Your task to perform on an android device: Search for the best selling books Image 0: 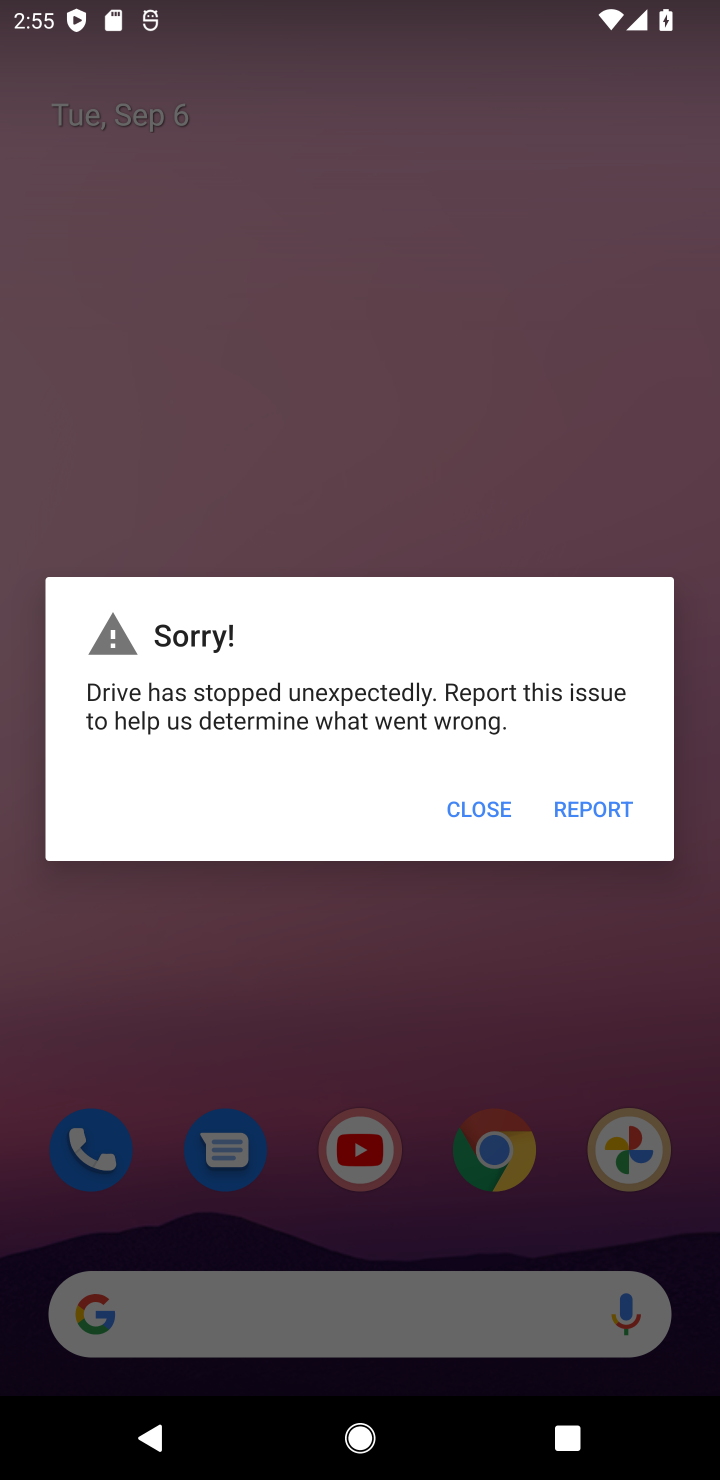
Step 0: press home button
Your task to perform on an android device: Search for the best selling books Image 1: 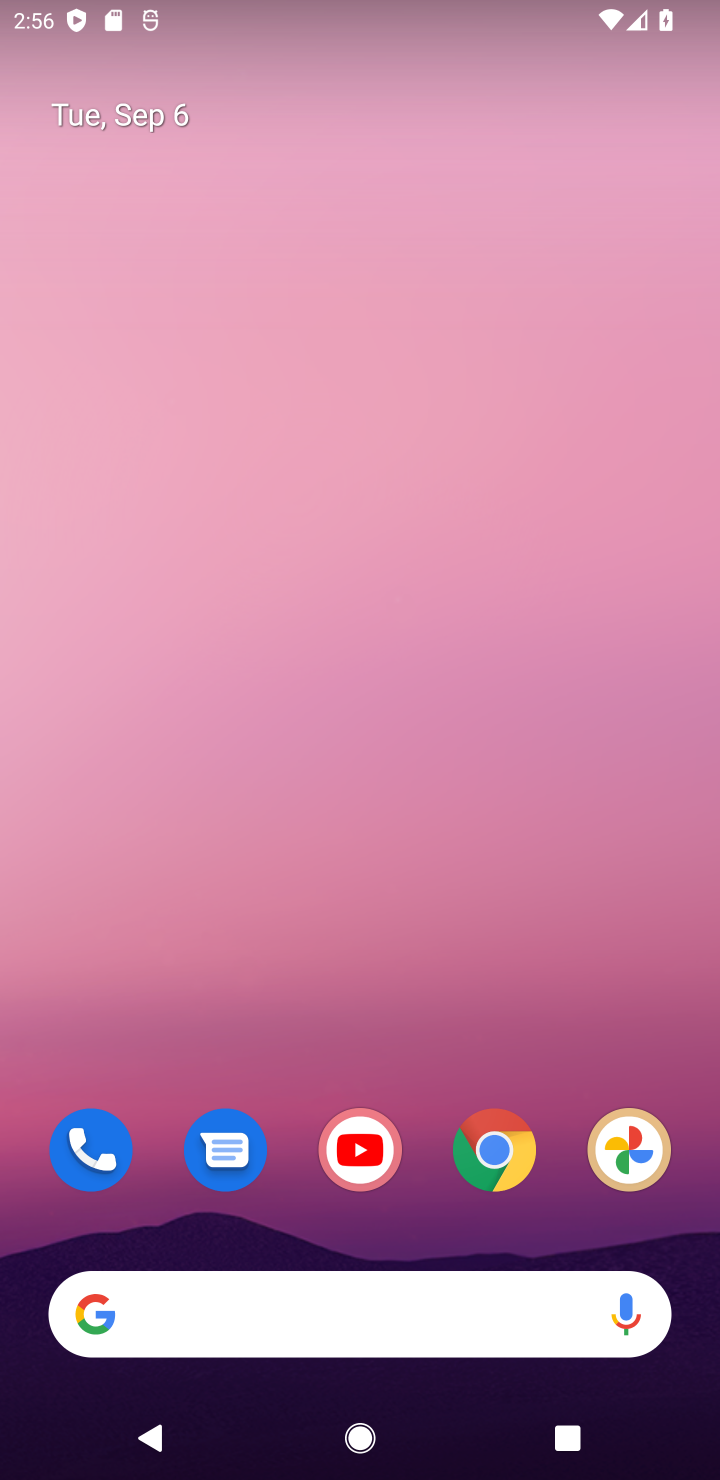
Step 1: click (505, 1158)
Your task to perform on an android device: Search for the best selling books Image 2: 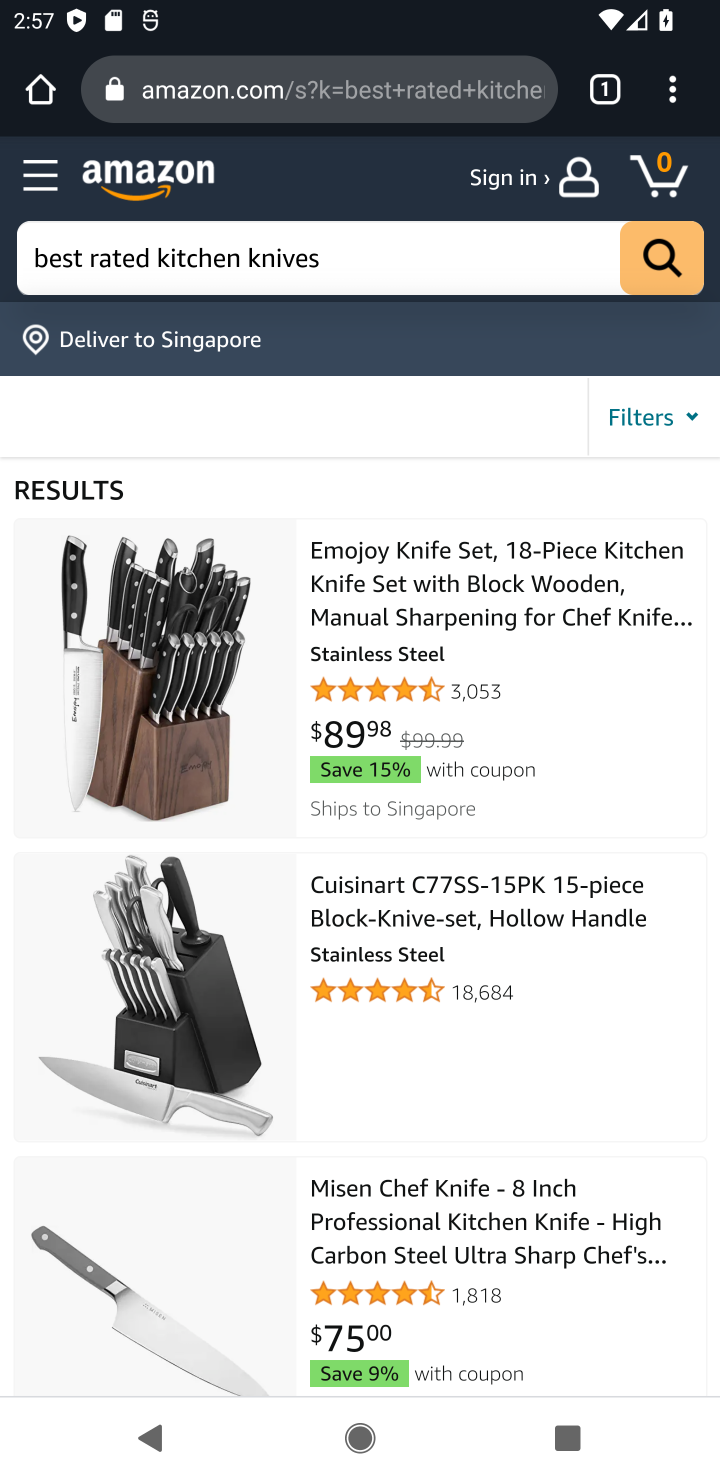
Step 2: click (277, 103)
Your task to perform on an android device: Search for the best selling books Image 3: 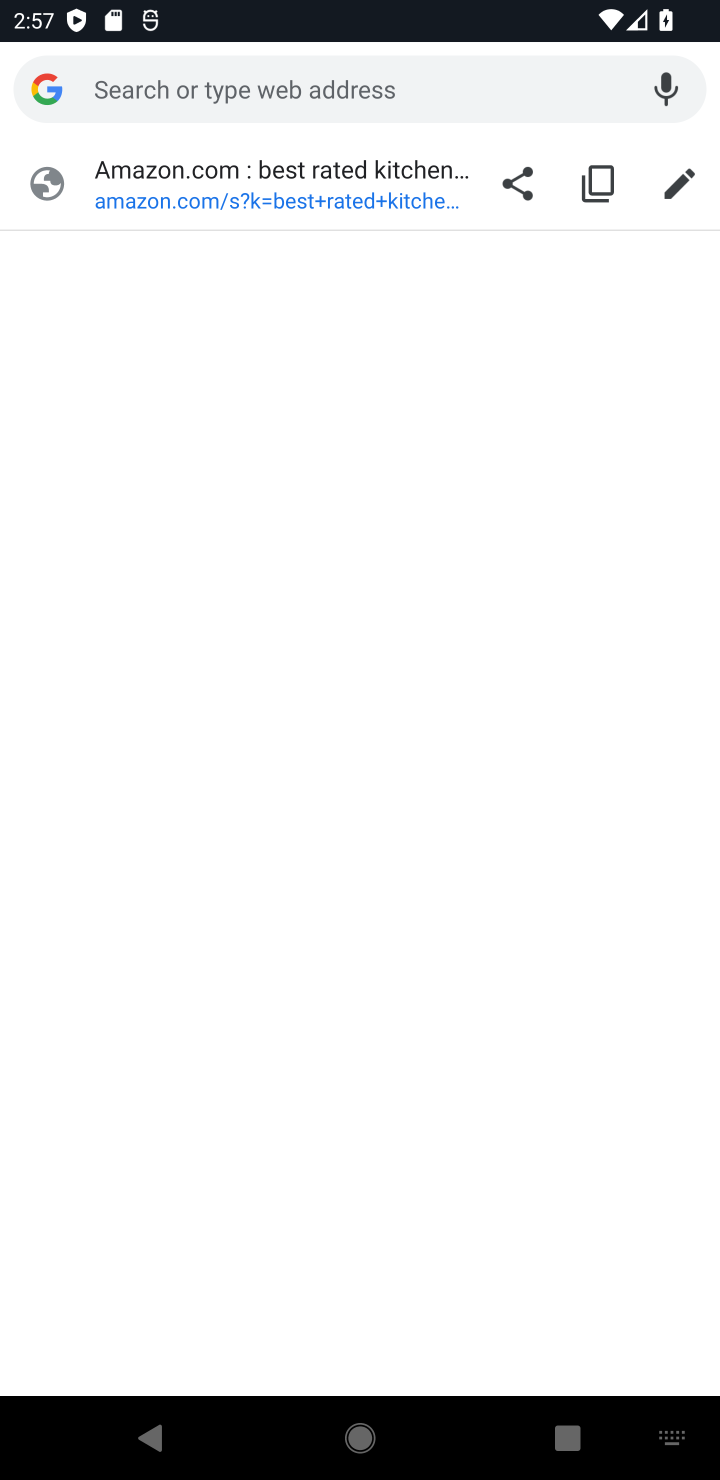
Step 3: type "the best selling books"
Your task to perform on an android device: Search for the best selling books Image 4: 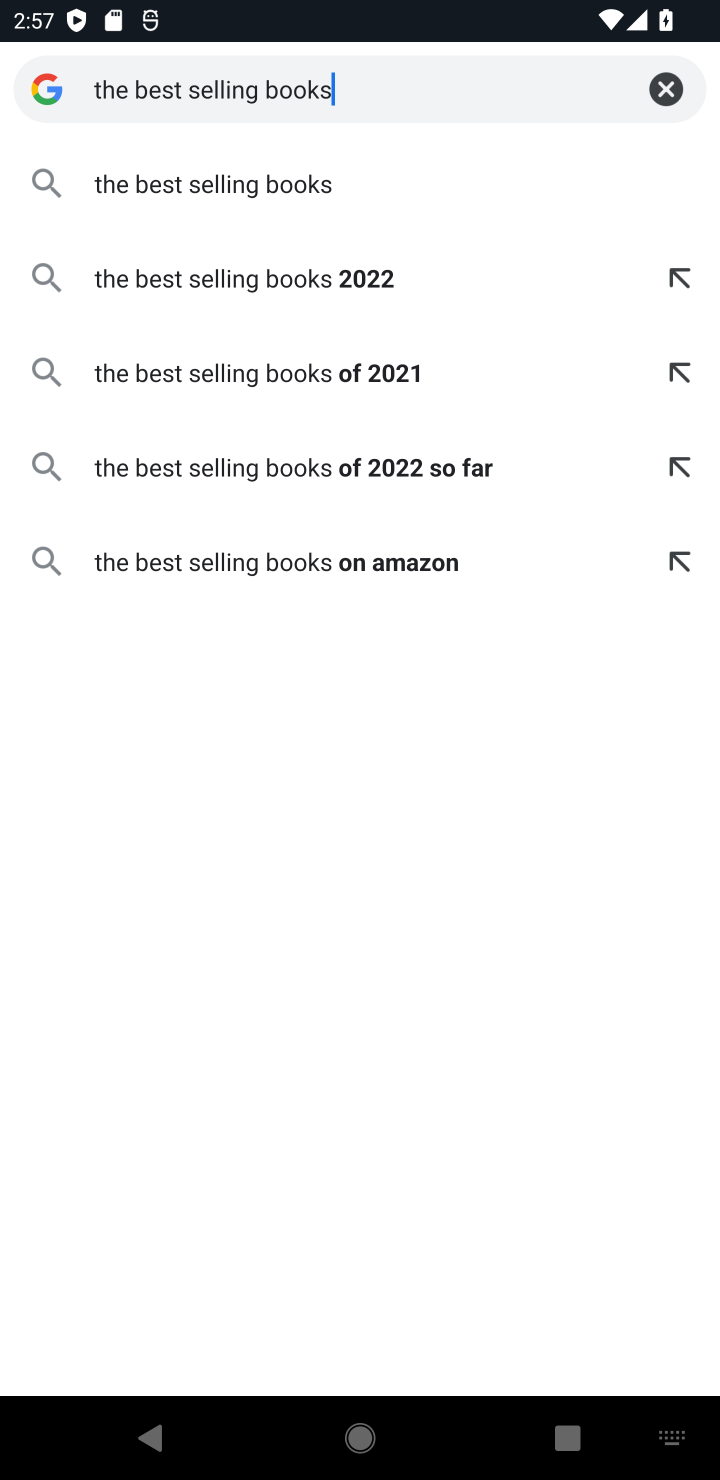
Step 4: click (217, 198)
Your task to perform on an android device: Search for the best selling books Image 5: 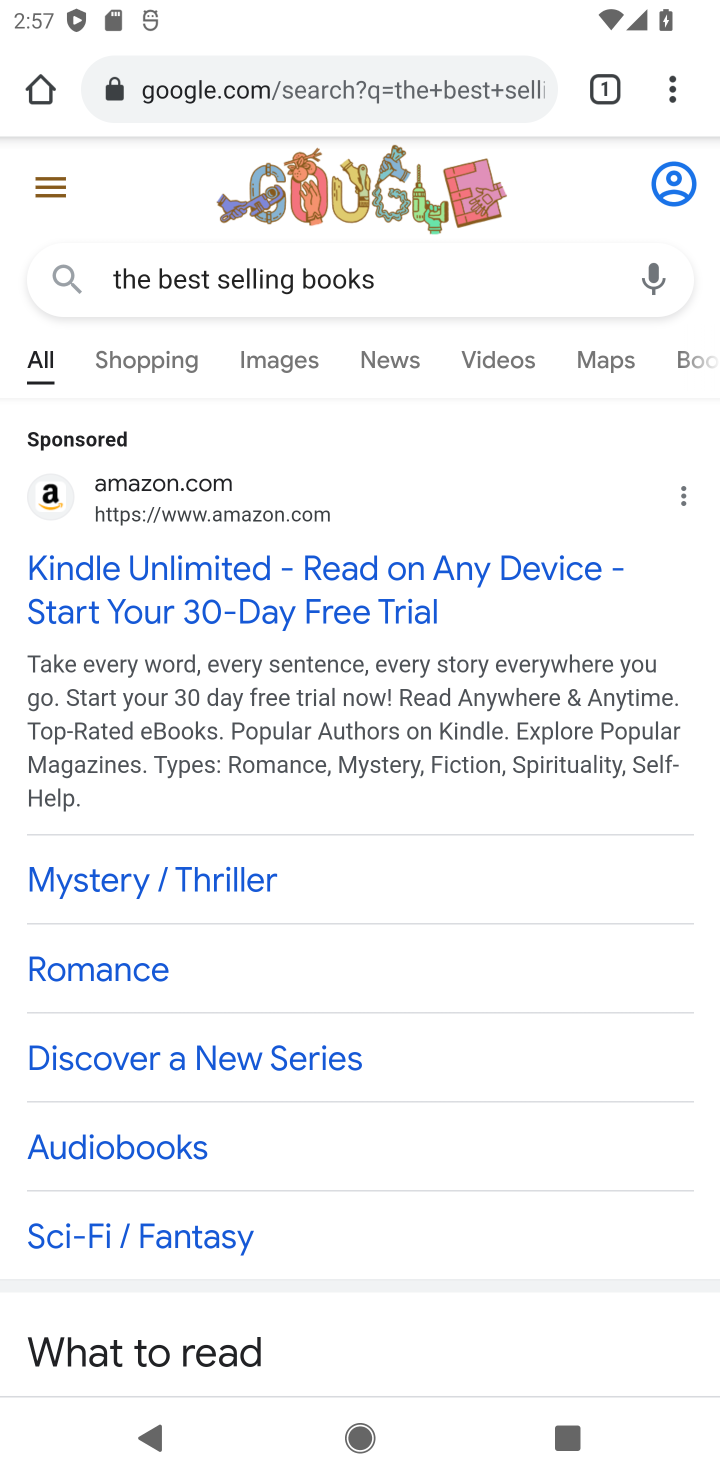
Step 5: click (55, 284)
Your task to perform on an android device: Search for the best selling books Image 6: 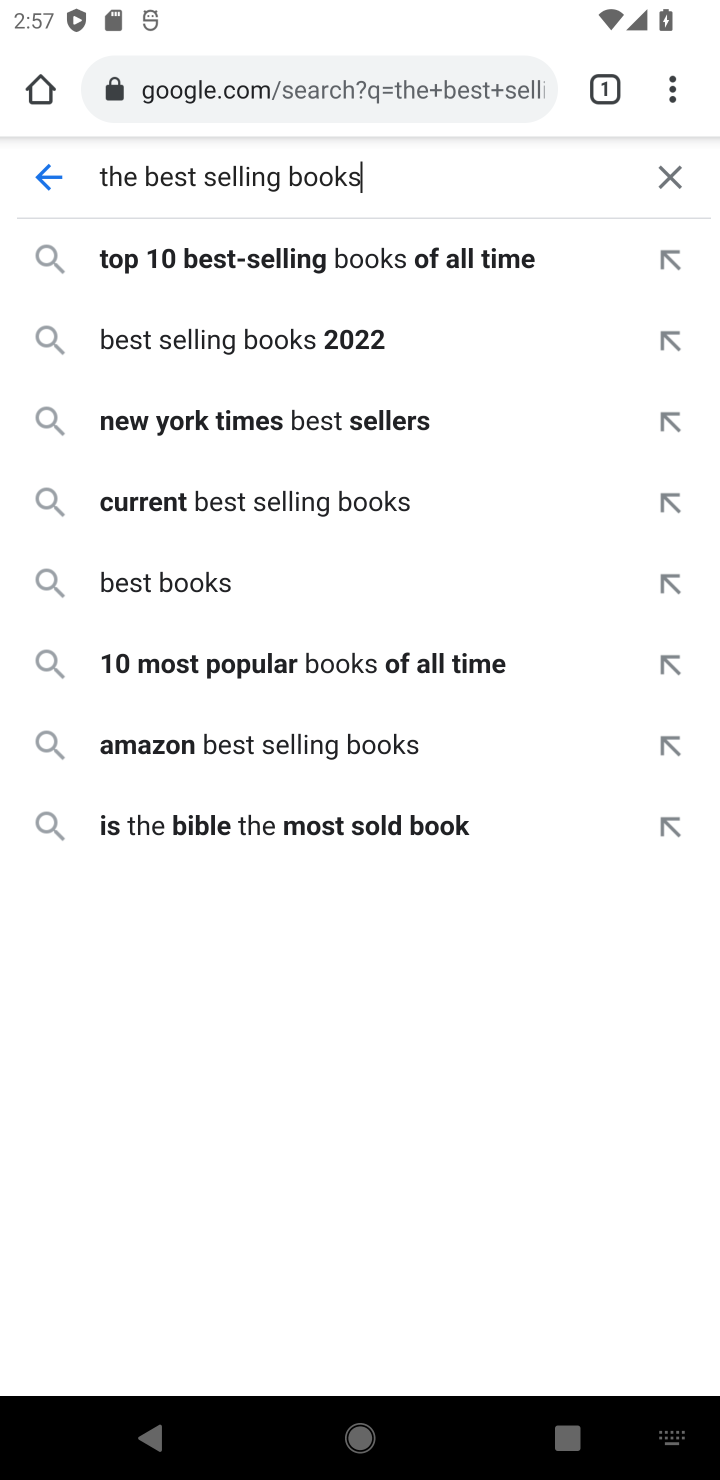
Step 6: click (344, 180)
Your task to perform on an android device: Search for the best selling books Image 7: 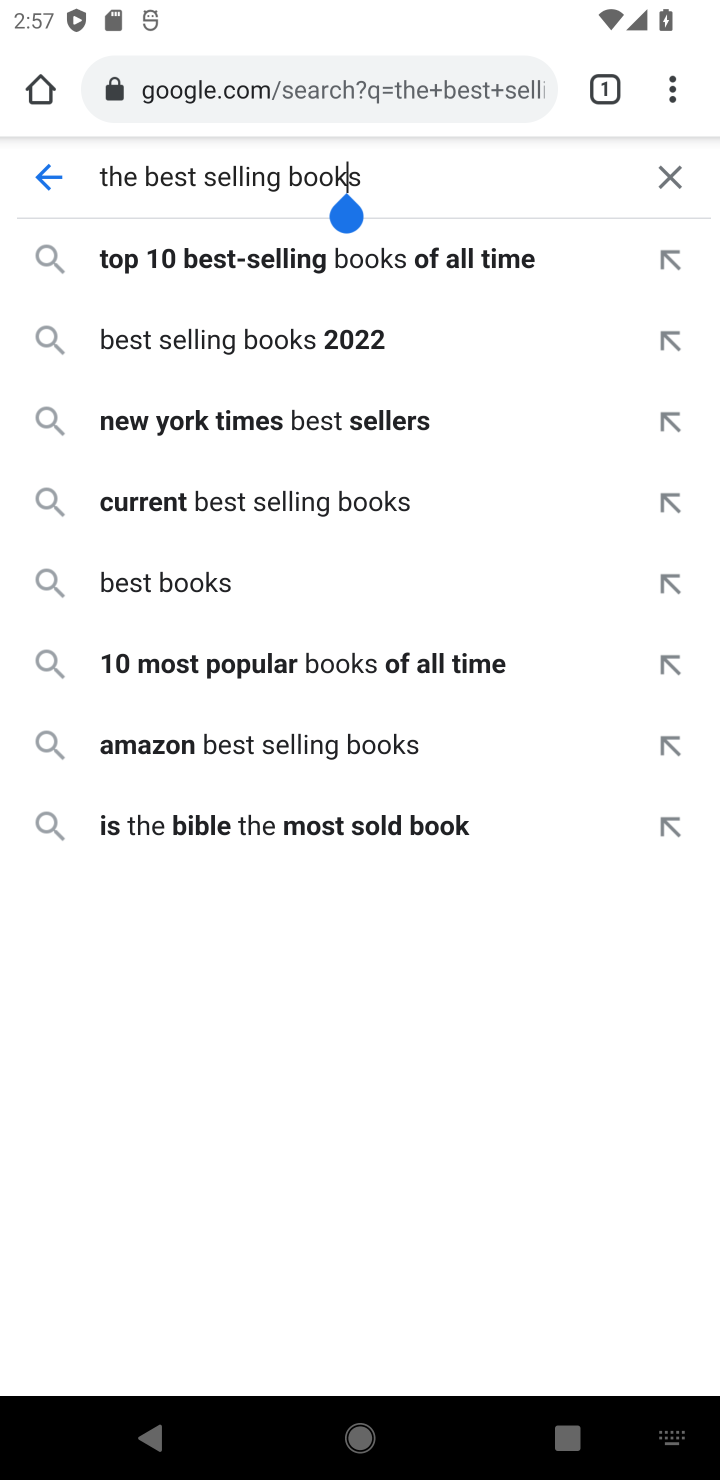
Step 7: click (257, 179)
Your task to perform on an android device: Search for the best selling books Image 8: 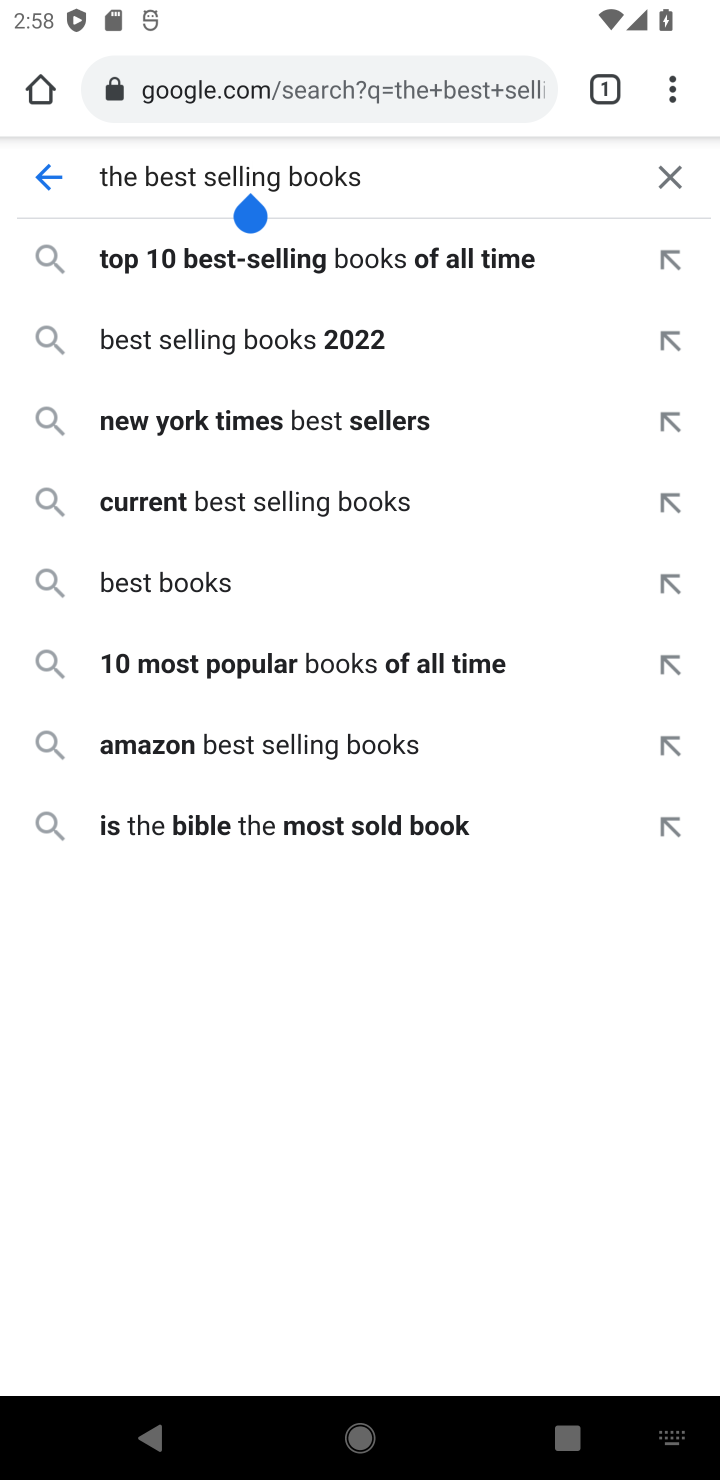
Step 8: click (259, 750)
Your task to perform on an android device: Search for the best selling books Image 9: 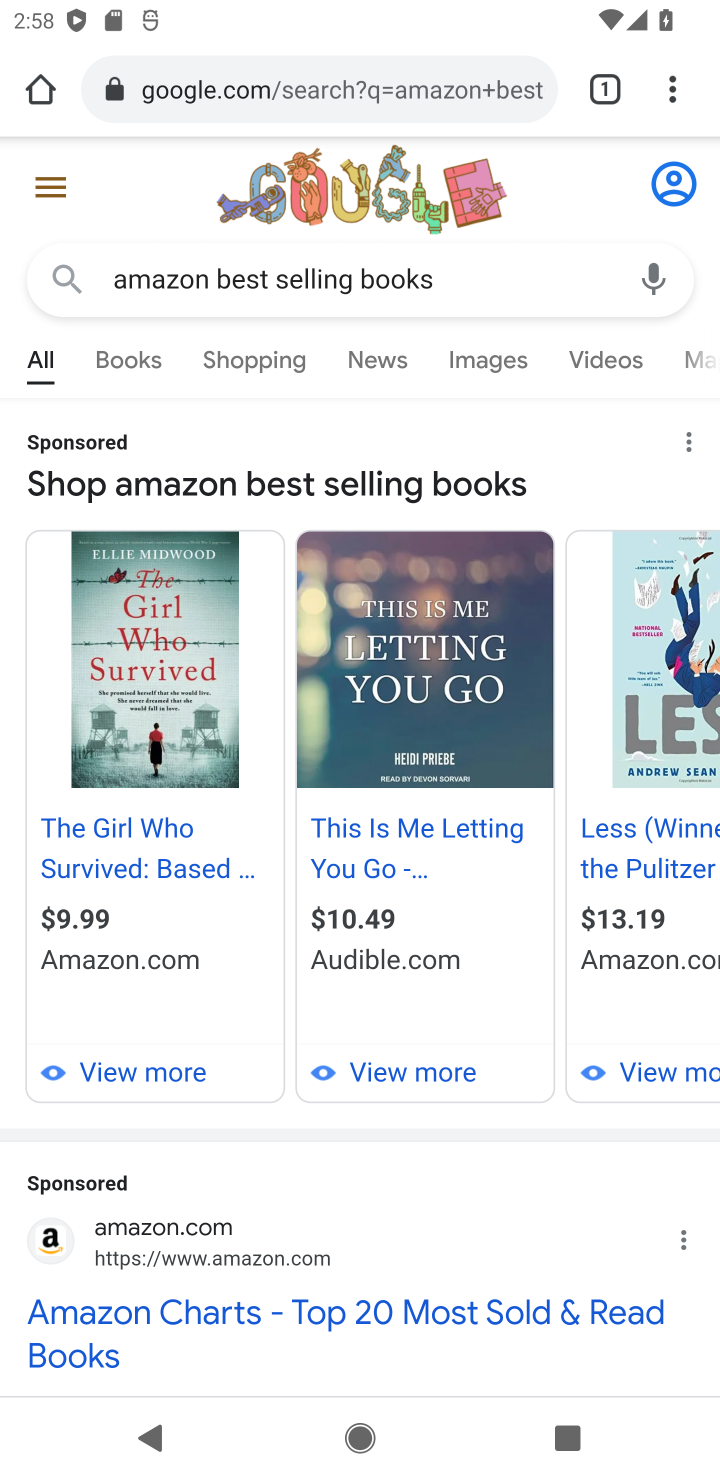
Step 9: task complete